Your task to perform on an android device: View the shopping cart on costco.com. Image 0: 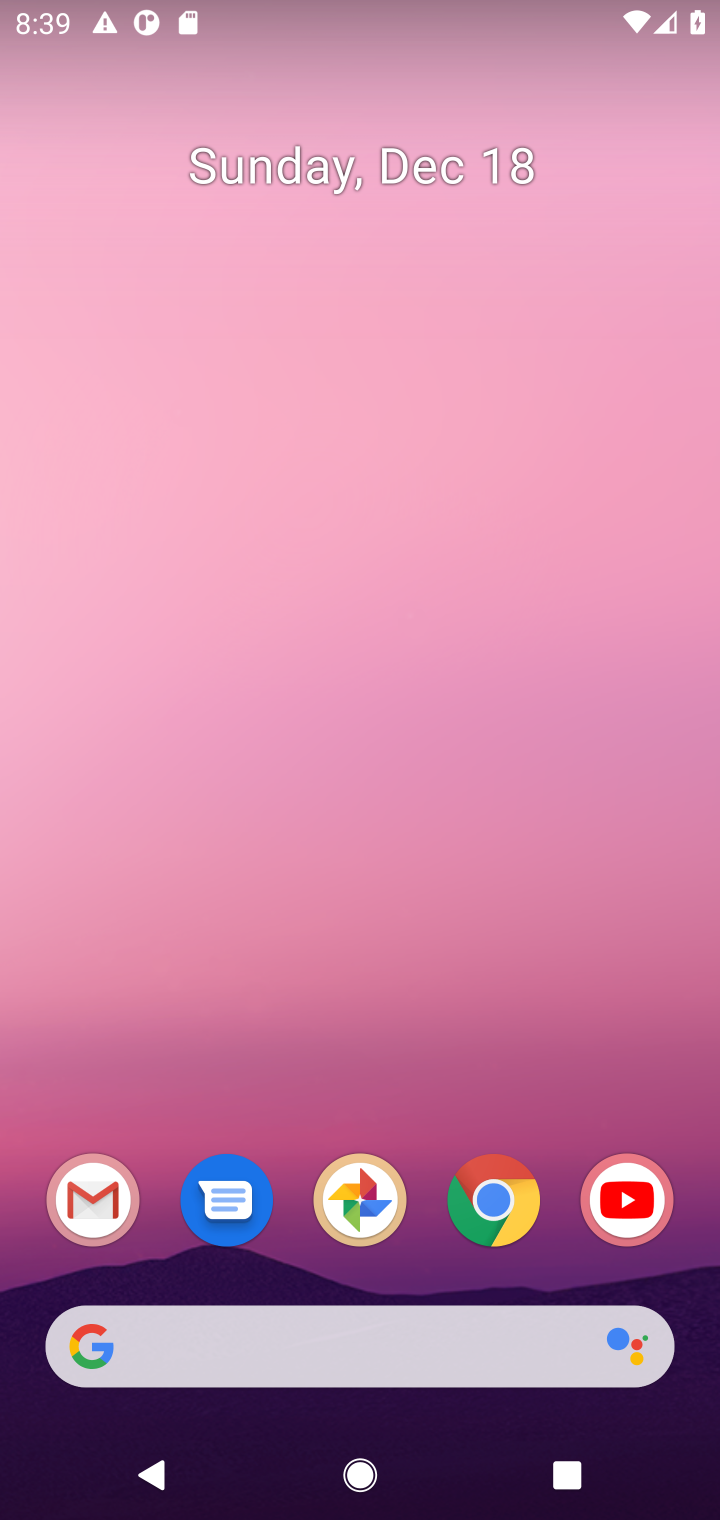
Step 0: click (497, 1211)
Your task to perform on an android device: View the shopping cart on costco.com. Image 1: 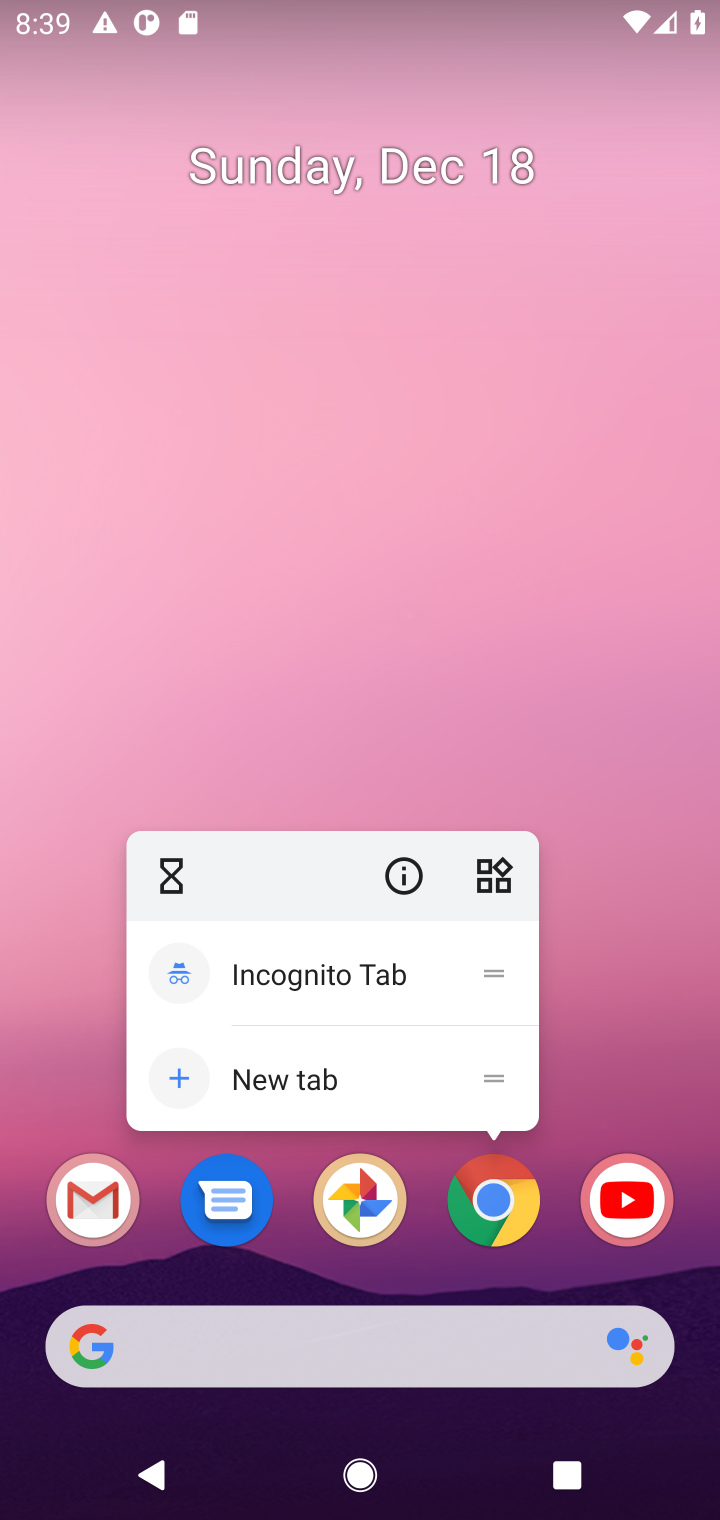
Step 1: click (497, 1211)
Your task to perform on an android device: View the shopping cart on costco.com. Image 2: 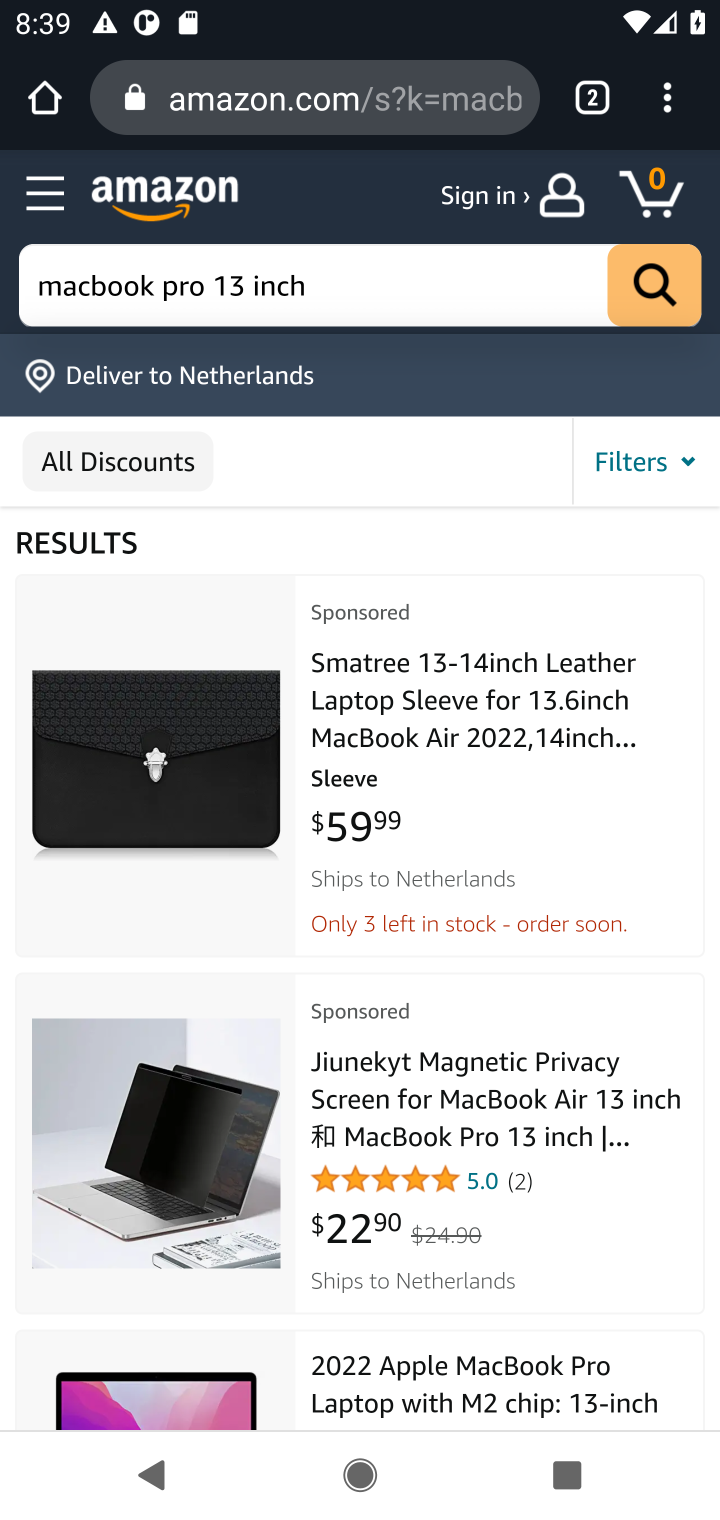
Step 2: click (193, 101)
Your task to perform on an android device: View the shopping cart on costco.com. Image 3: 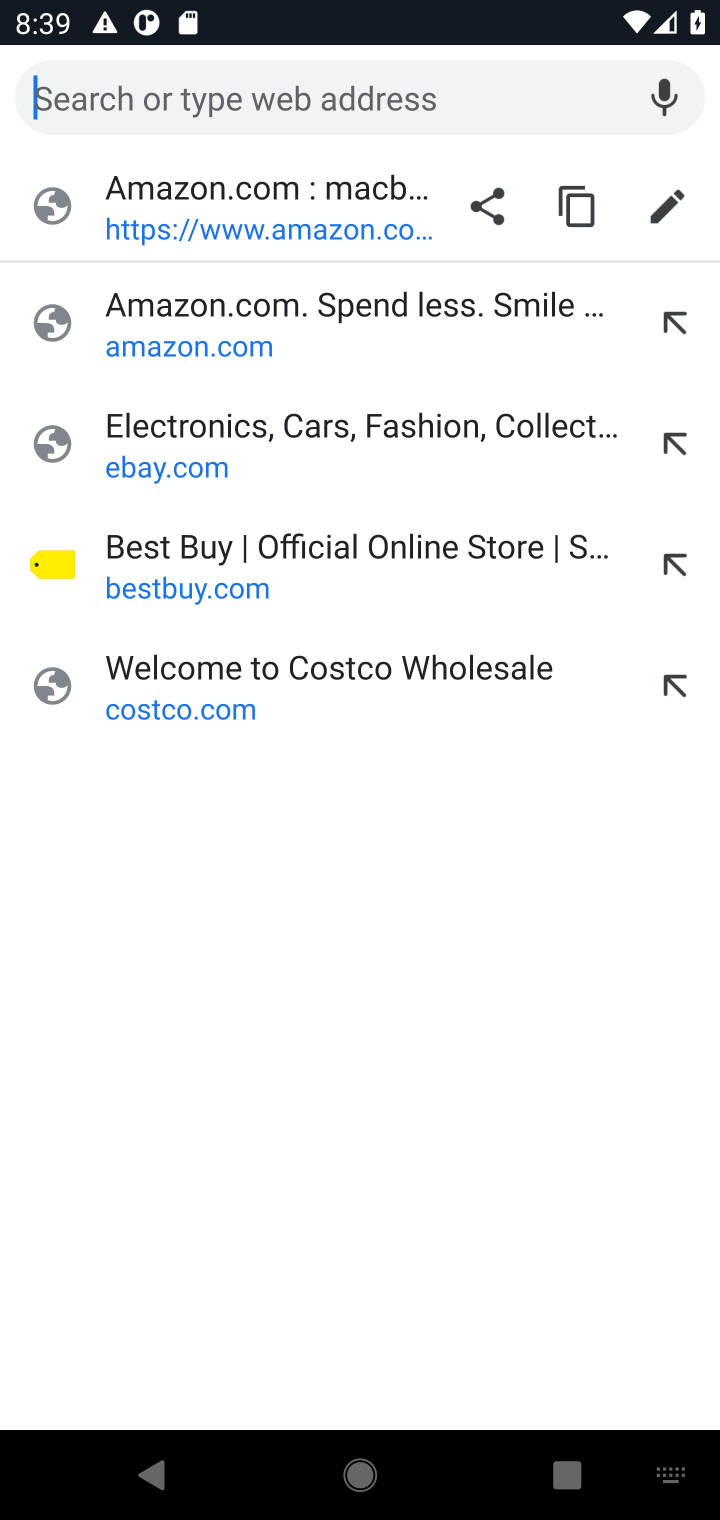
Step 3: click (203, 684)
Your task to perform on an android device: View the shopping cart on costco.com. Image 4: 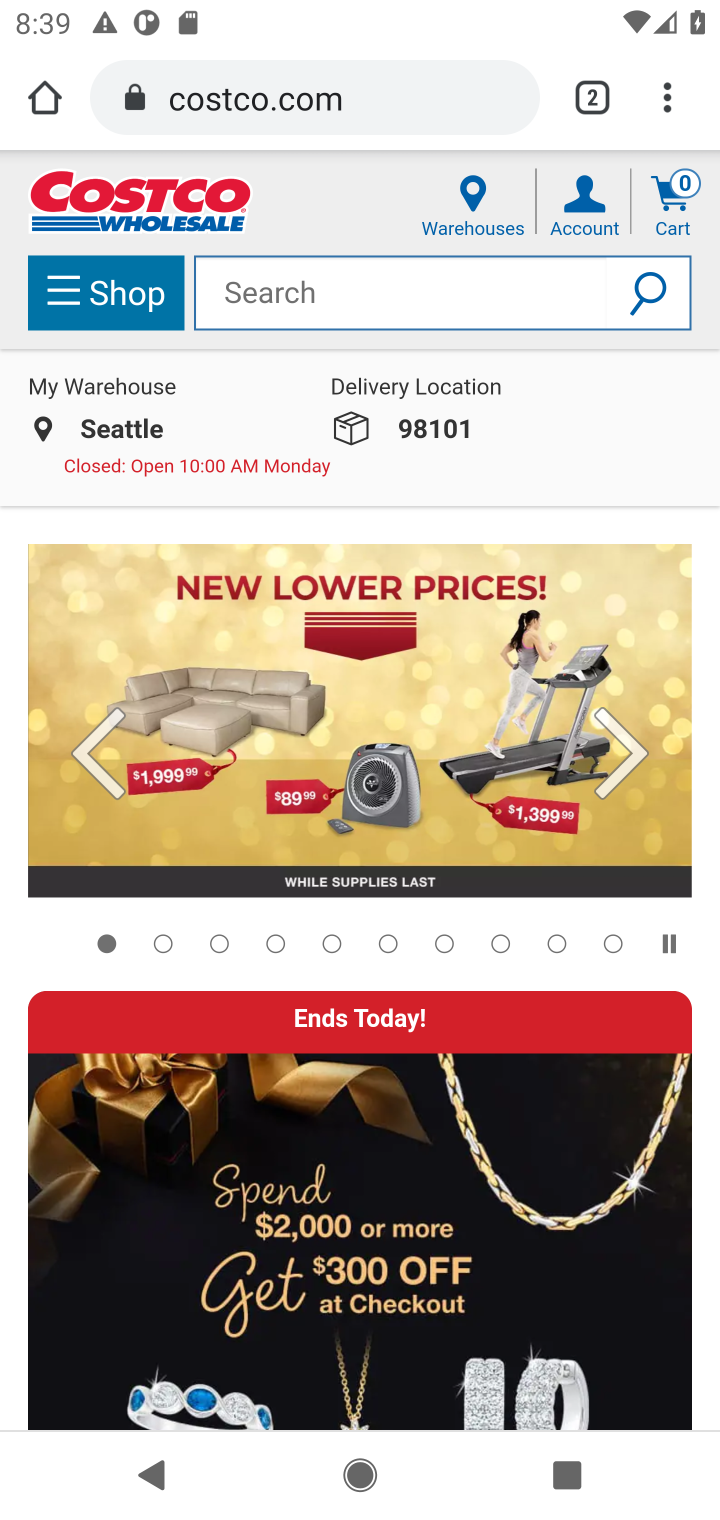
Step 4: click (671, 208)
Your task to perform on an android device: View the shopping cart on costco.com. Image 5: 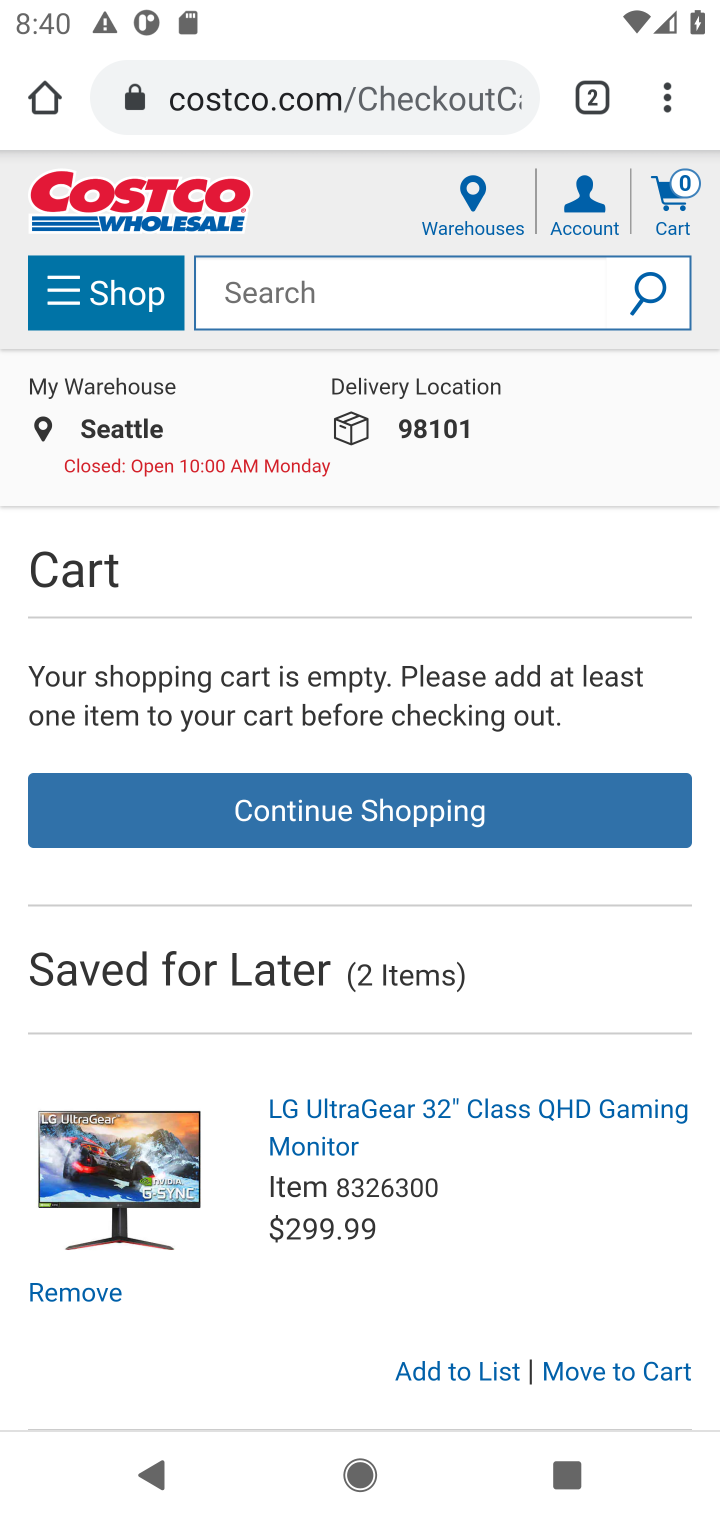
Step 5: task complete